Your task to perform on an android device: Go to ESPN.com Image 0: 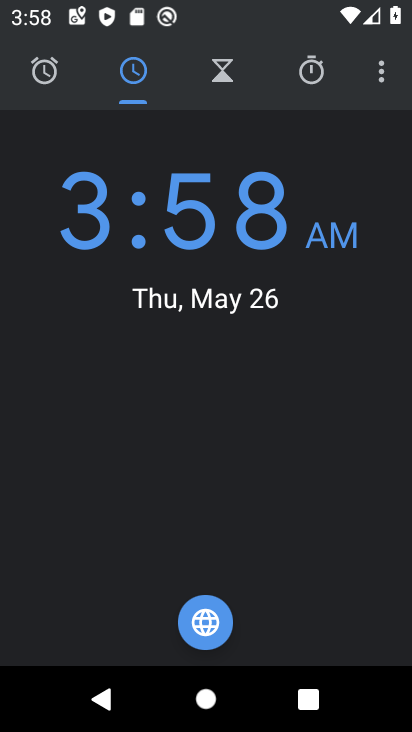
Step 0: press home button
Your task to perform on an android device: Go to ESPN.com Image 1: 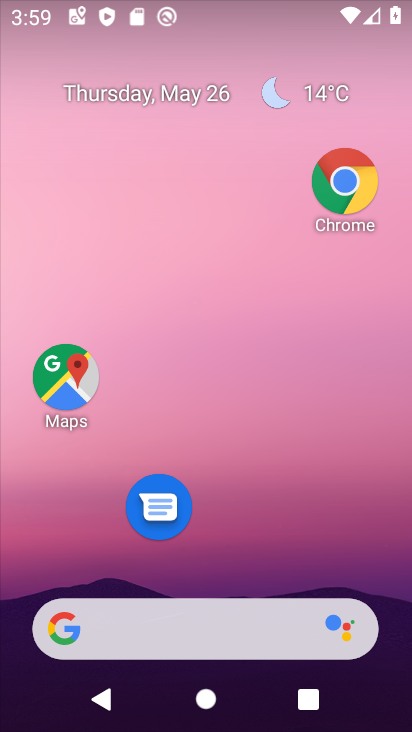
Step 1: drag from (261, 551) to (268, 103)
Your task to perform on an android device: Go to ESPN.com Image 2: 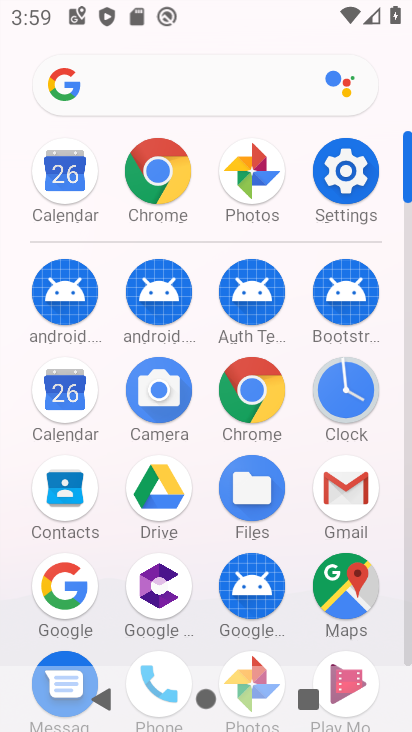
Step 2: click (250, 389)
Your task to perform on an android device: Go to ESPN.com Image 3: 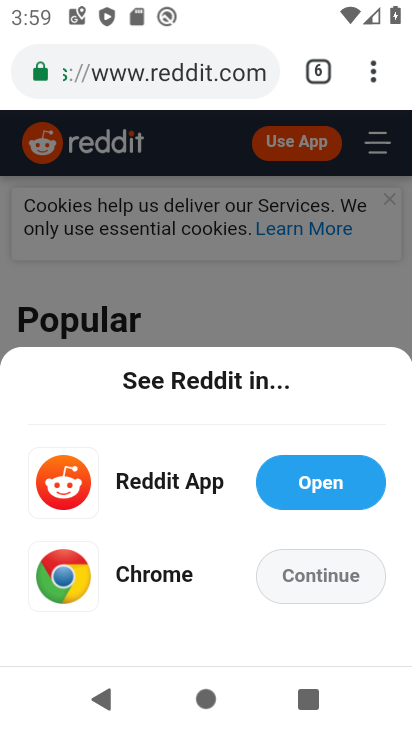
Step 3: click (173, 77)
Your task to perform on an android device: Go to ESPN.com Image 4: 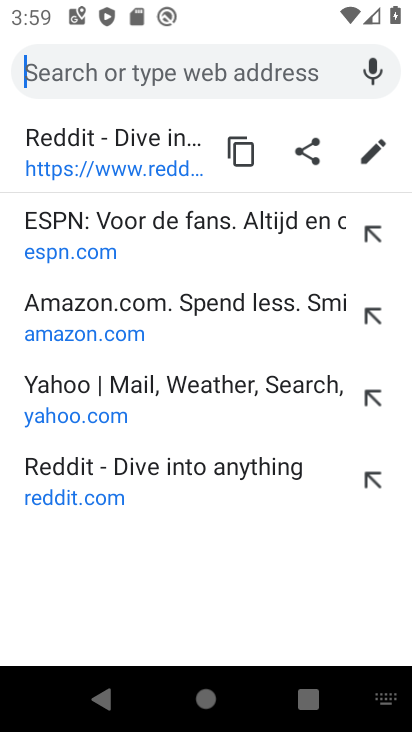
Step 4: type " ESPN.com"
Your task to perform on an android device: Go to ESPN.com Image 5: 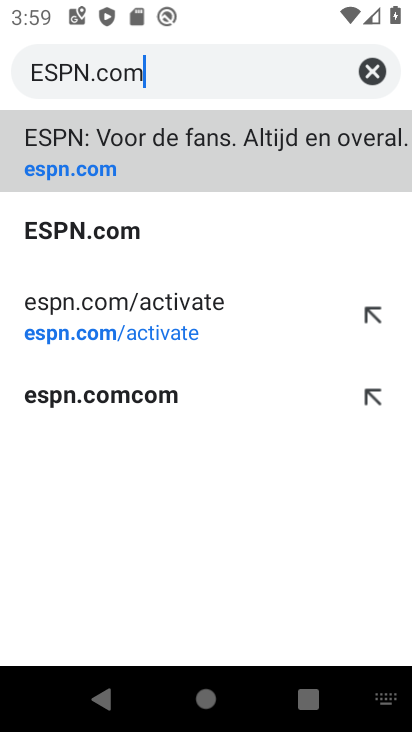
Step 5: click (86, 167)
Your task to perform on an android device: Go to ESPN.com Image 6: 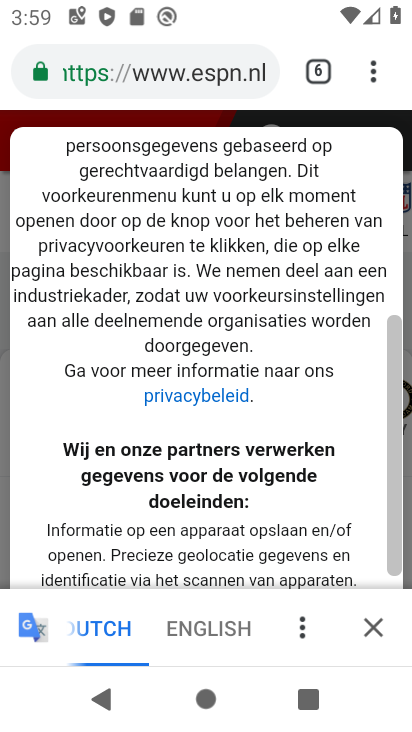
Step 6: task complete